Your task to perform on an android device: Show me popular games on the Play Store Image 0: 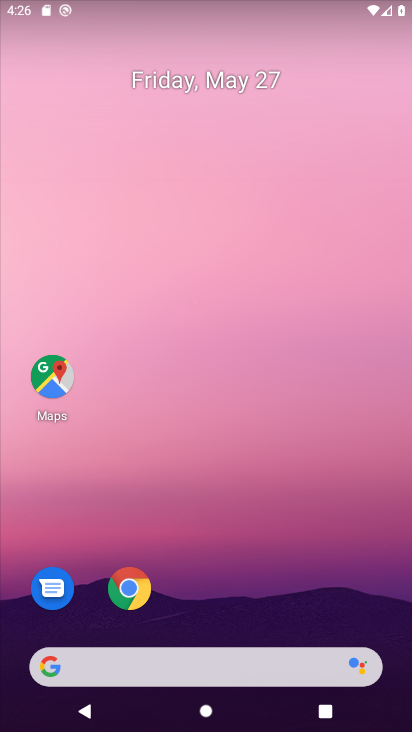
Step 0: drag from (140, 726) to (125, 58)
Your task to perform on an android device: Show me popular games on the Play Store Image 1: 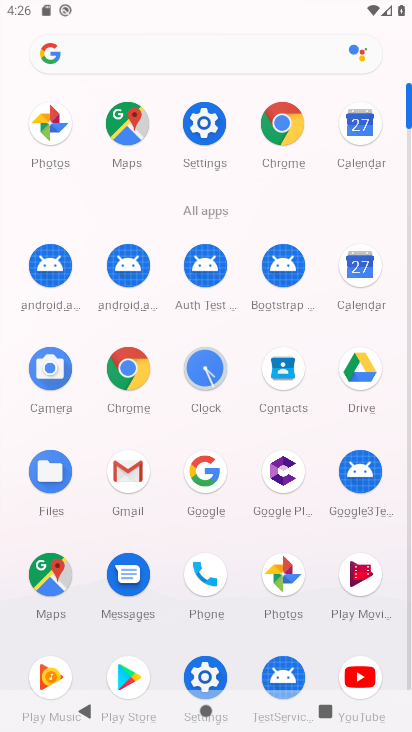
Step 1: click (126, 679)
Your task to perform on an android device: Show me popular games on the Play Store Image 2: 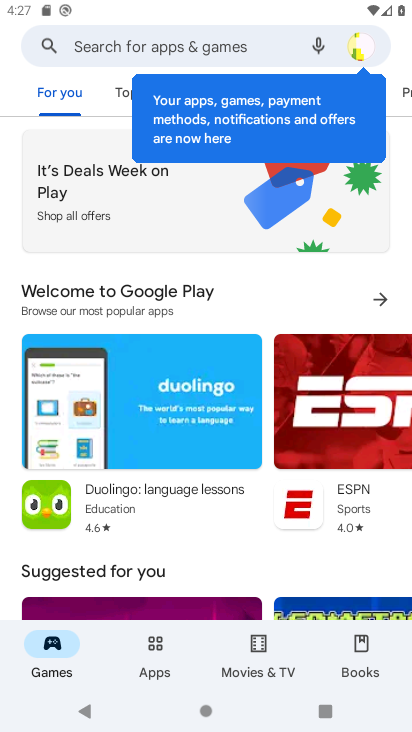
Step 2: click (126, 91)
Your task to perform on an android device: Show me popular games on the Play Store Image 3: 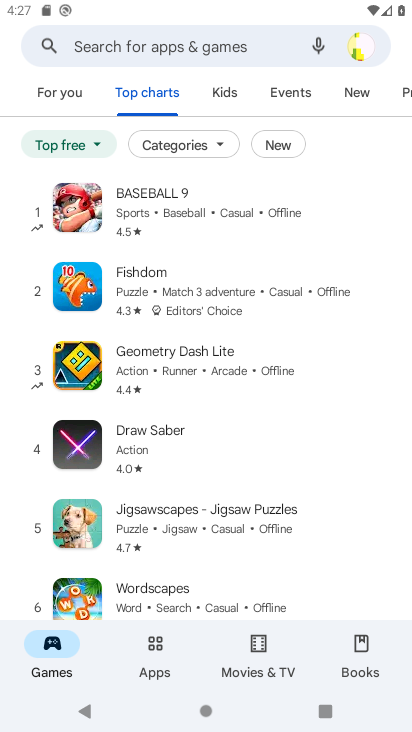
Step 3: task complete